Your task to perform on an android device: turn off priority inbox in the gmail app Image 0: 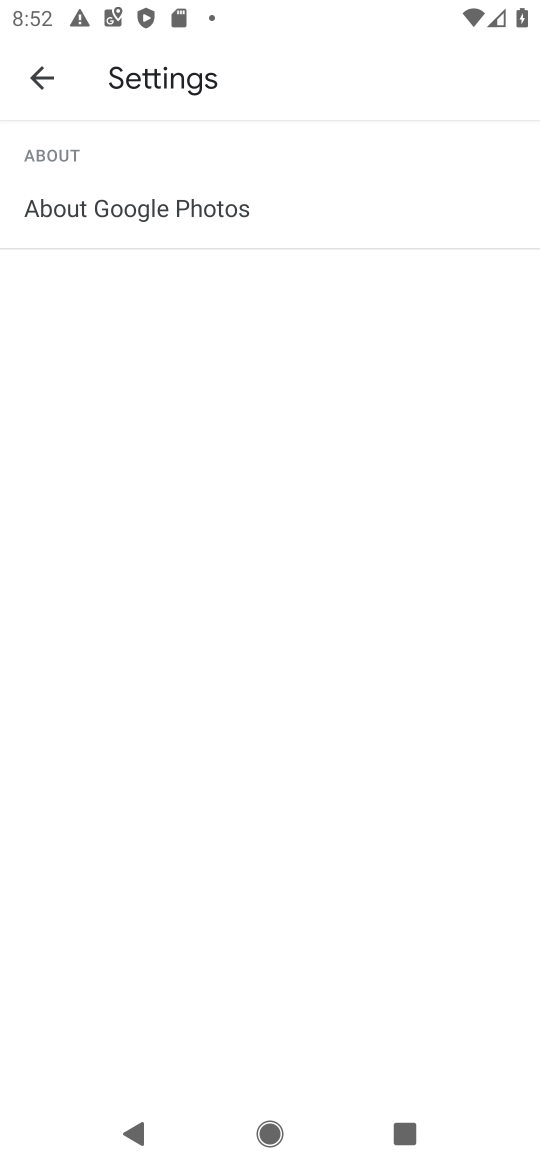
Step 0: press home button
Your task to perform on an android device: turn off priority inbox in the gmail app Image 1: 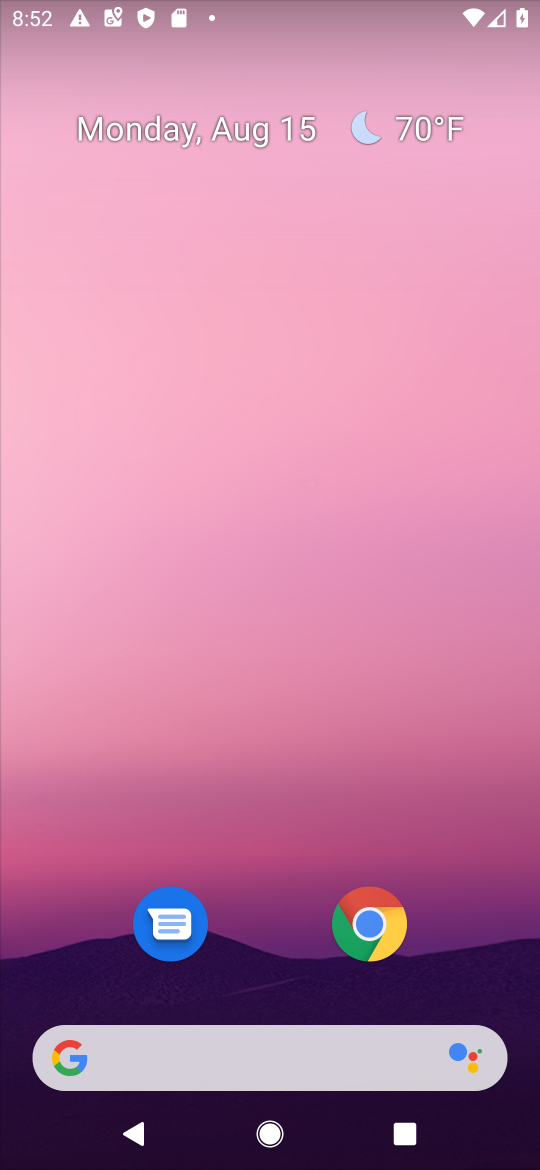
Step 1: drag from (493, 971) to (435, 199)
Your task to perform on an android device: turn off priority inbox in the gmail app Image 2: 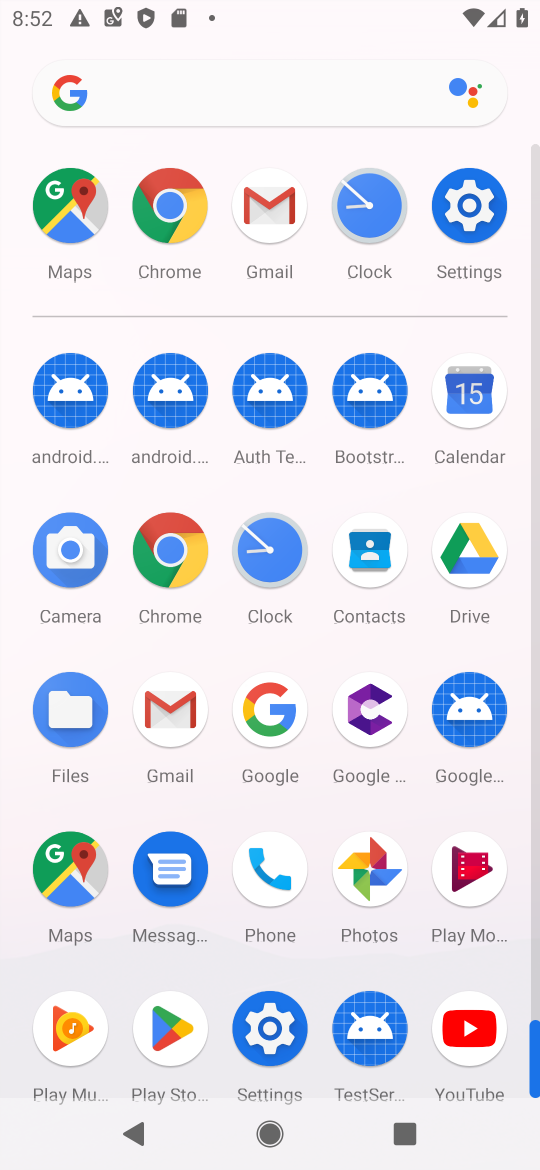
Step 2: click (170, 713)
Your task to perform on an android device: turn off priority inbox in the gmail app Image 3: 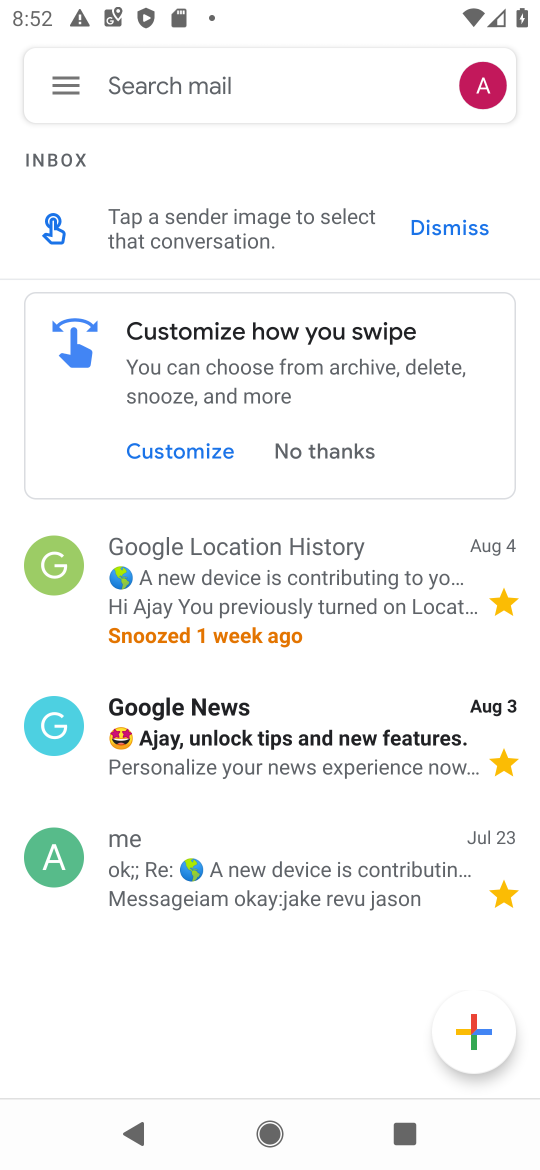
Step 3: click (70, 87)
Your task to perform on an android device: turn off priority inbox in the gmail app Image 4: 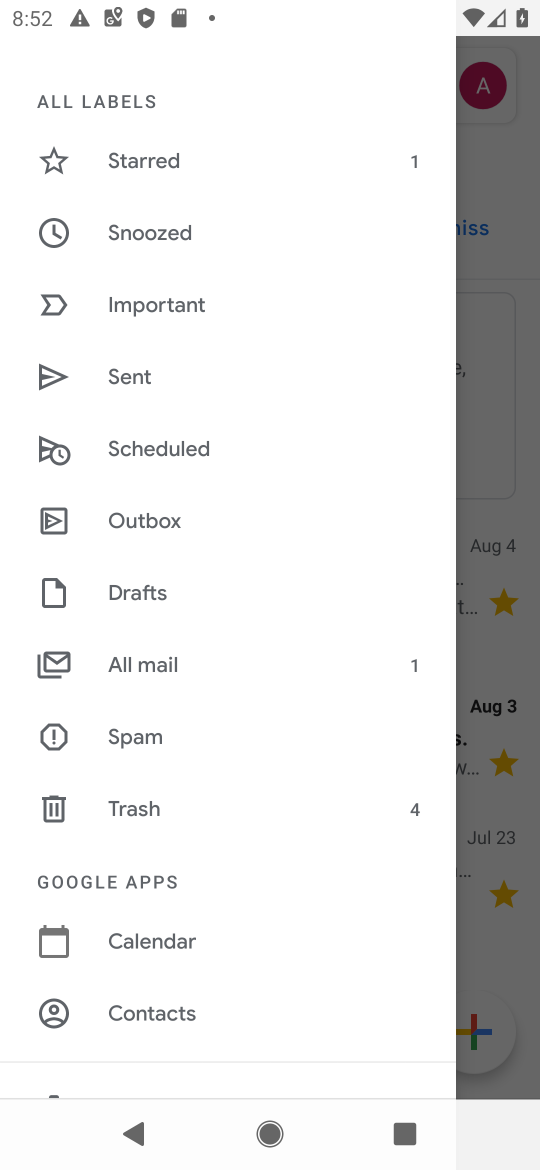
Step 4: drag from (259, 1009) to (266, 382)
Your task to perform on an android device: turn off priority inbox in the gmail app Image 5: 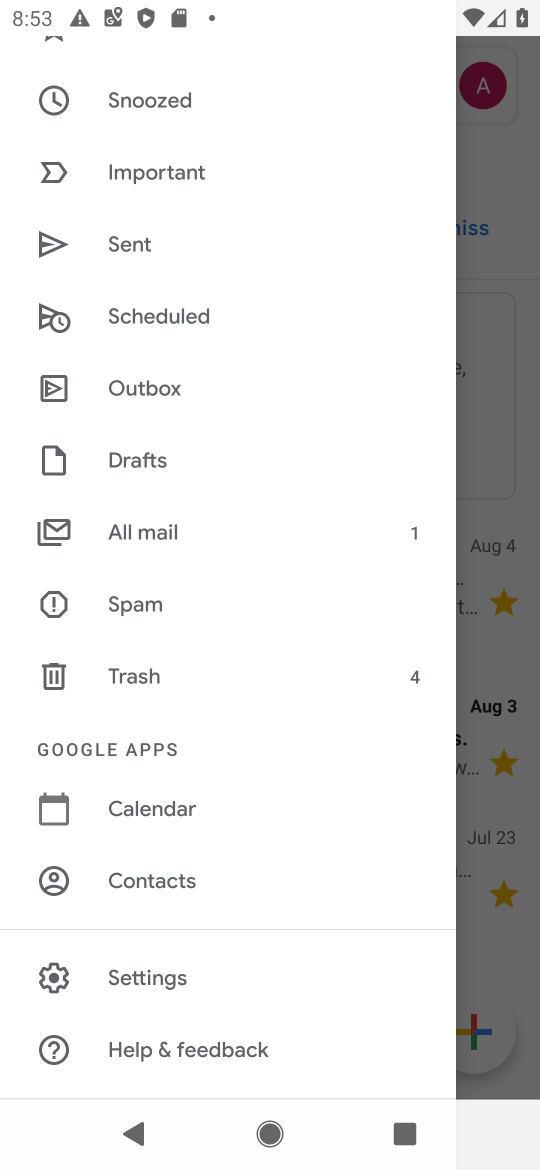
Step 5: click (133, 974)
Your task to perform on an android device: turn off priority inbox in the gmail app Image 6: 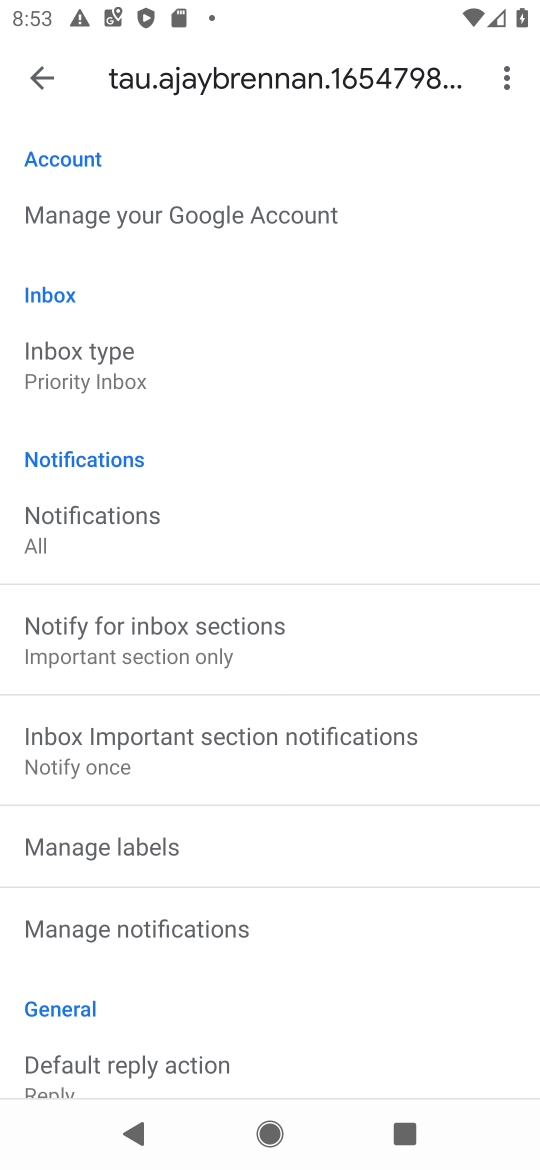
Step 6: click (92, 360)
Your task to perform on an android device: turn off priority inbox in the gmail app Image 7: 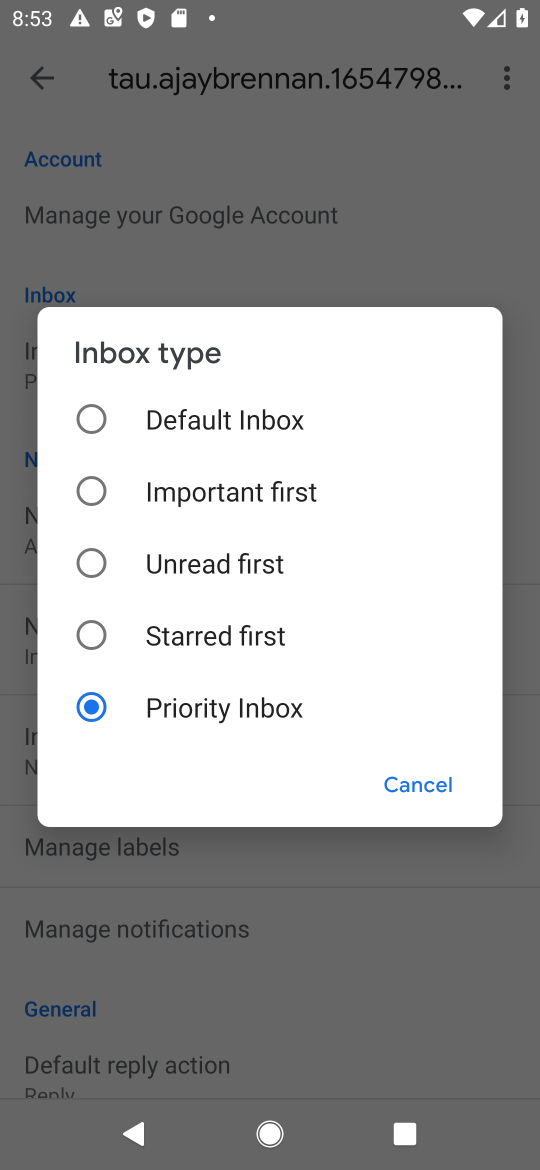
Step 7: click (91, 419)
Your task to perform on an android device: turn off priority inbox in the gmail app Image 8: 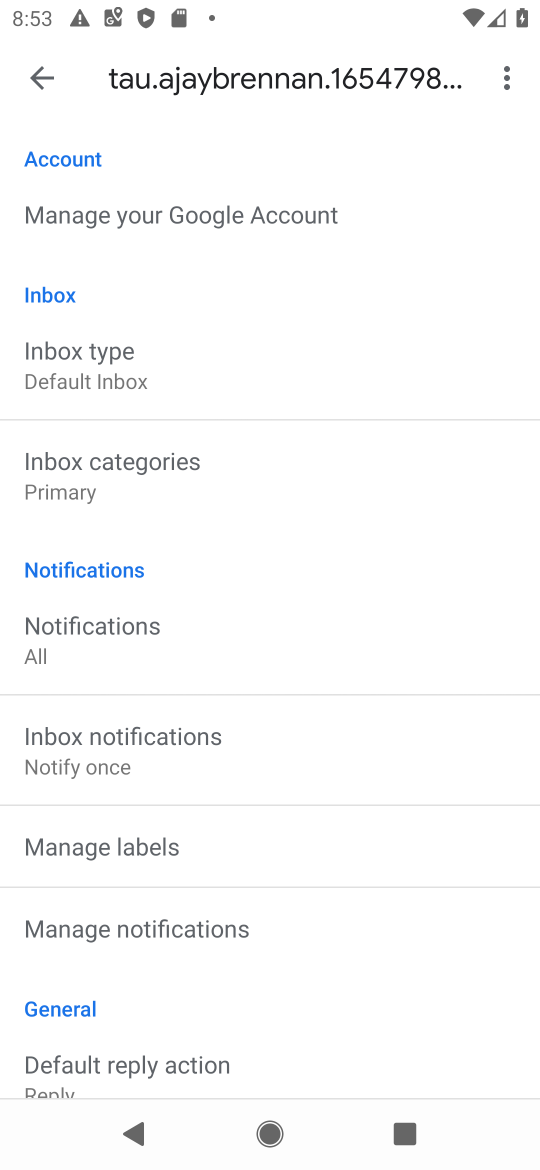
Step 8: task complete